Your task to perform on an android device: Go to location settings Image 0: 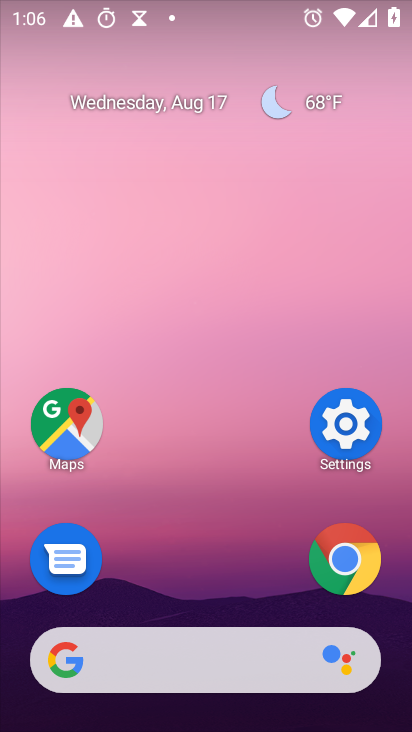
Step 0: click (357, 426)
Your task to perform on an android device: Go to location settings Image 1: 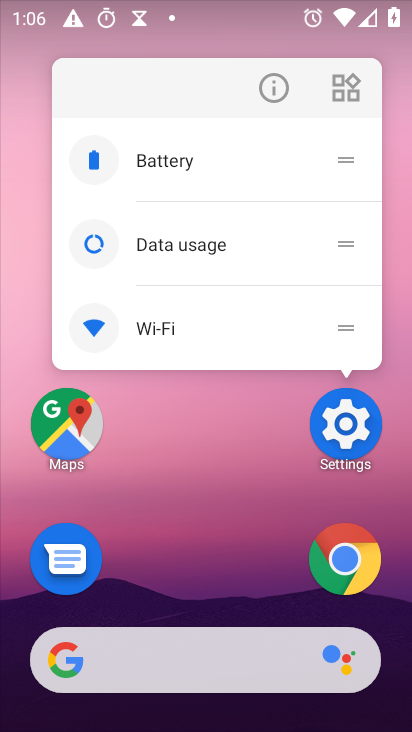
Step 1: click (339, 421)
Your task to perform on an android device: Go to location settings Image 2: 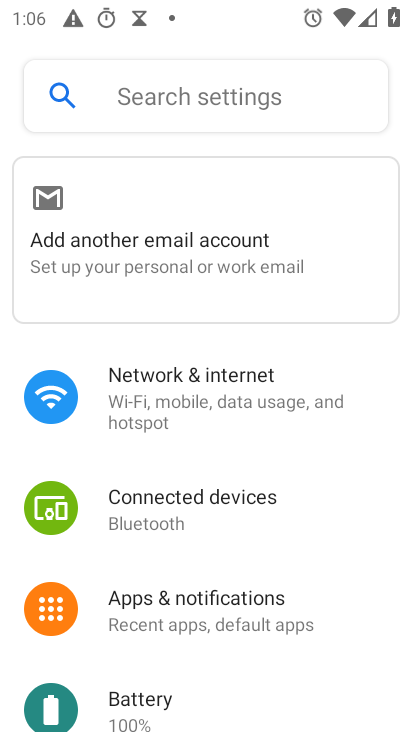
Step 2: drag from (235, 677) to (342, 136)
Your task to perform on an android device: Go to location settings Image 3: 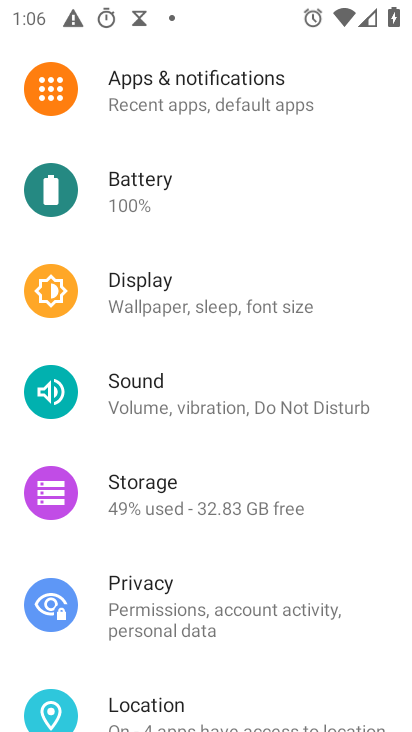
Step 3: drag from (249, 616) to (328, 194)
Your task to perform on an android device: Go to location settings Image 4: 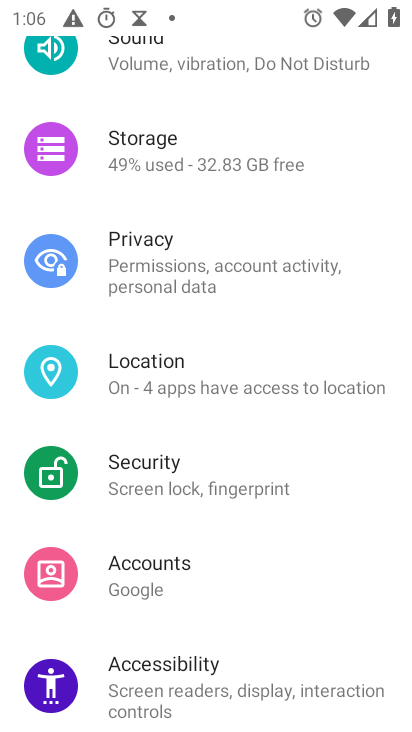
Step 4: click (181, 361)
Your task to perform on an android device: Go to location settings Image 5: 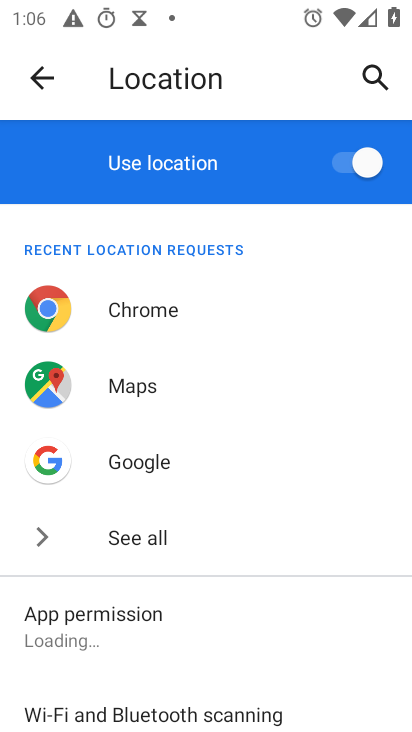
Step 5: task complete